Your task to perform on an android device: clear history in the chrome app Image 0: 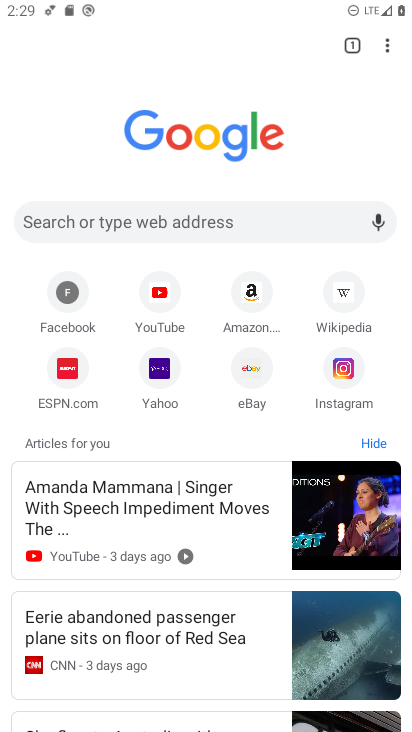
Step 0: press home button
Your task to perform on an android device: clear history in the chrome app Image 1: 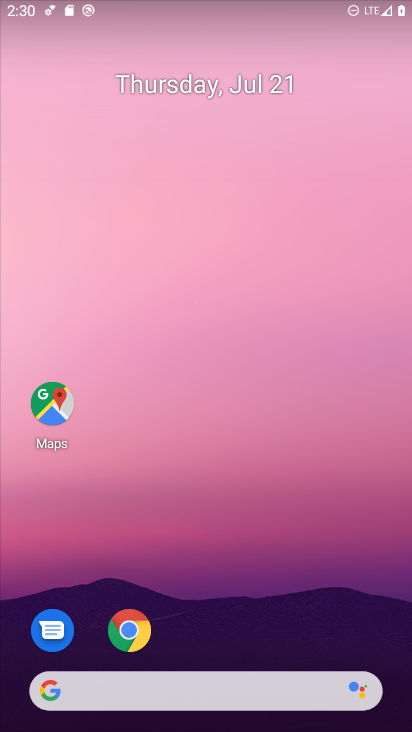
Step 1: click (122, 617)
Your task to perform on an android device: clear history in the chrome app Image 2: 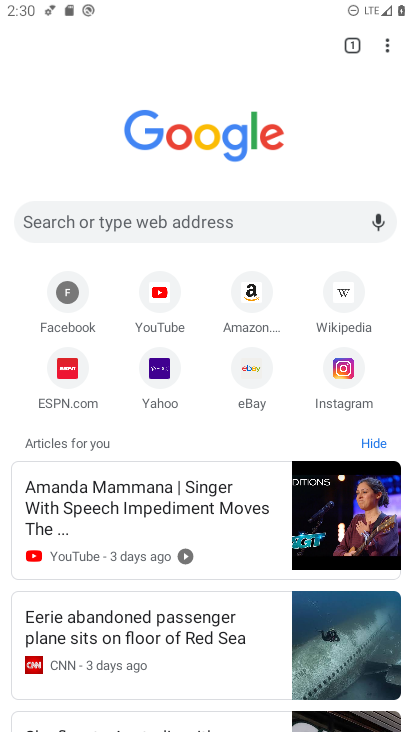
Step 2: click (393, 47)
Your task to perform on an android device: clear history in the chrome app Image 3: 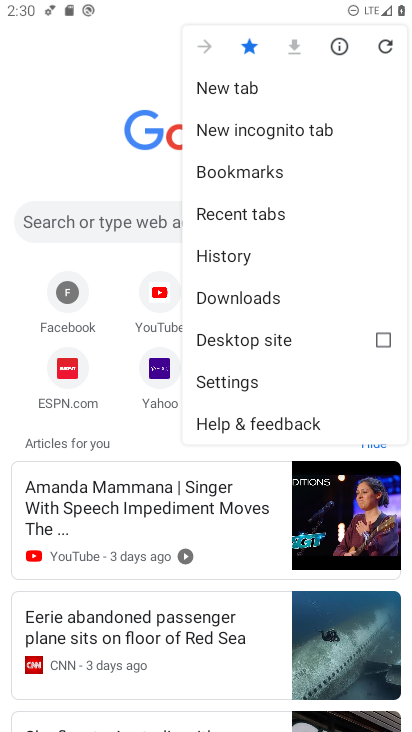
Step 3: click (230, 261)
Your task to perform on an android device: clear history in the chrome app Image 4: 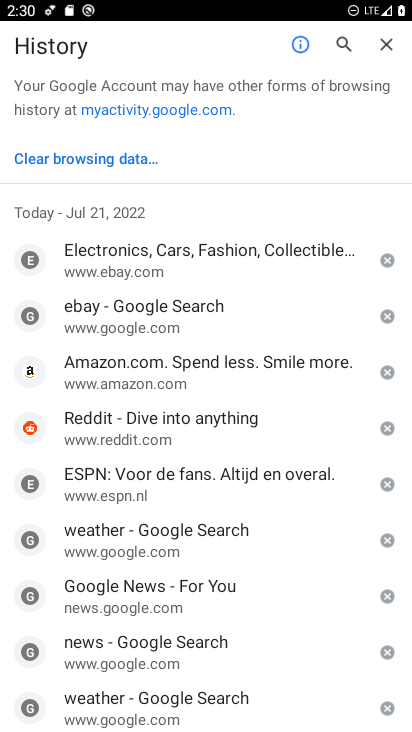
Step 4: click (122, 159)
Your task to perform on an android device: clear history in the chrome app Image 5: 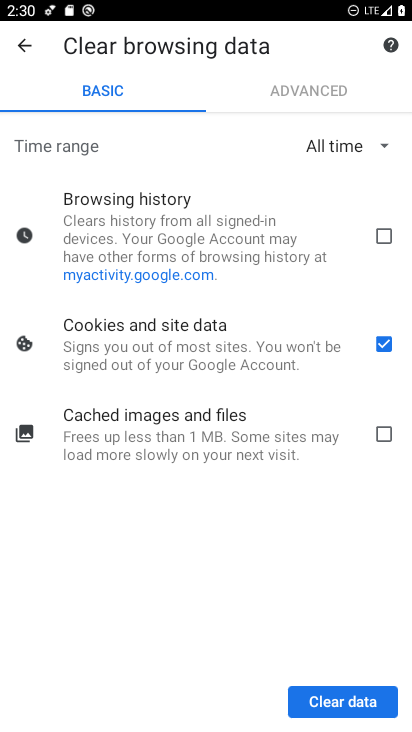
Step 5: click (382, 238)
Your task to perform on an android device: clear history in the chrome app Image 6: 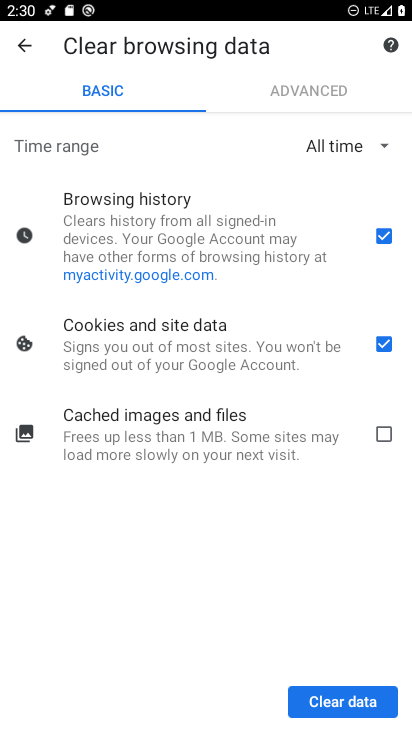
Step 6: click (386, 435)
Your task to perform on an android device: clear history in the chrome app Image 7: 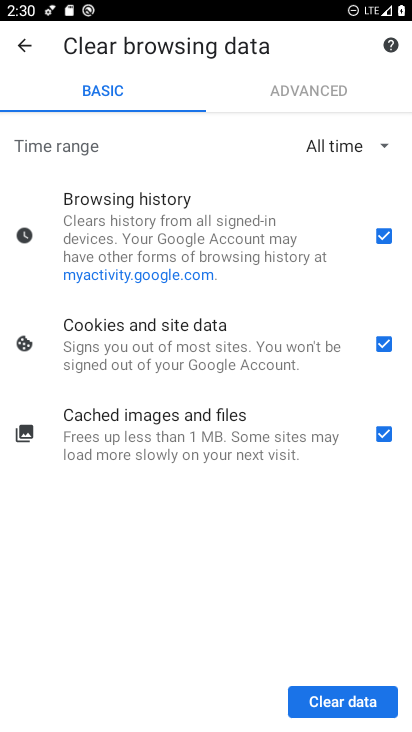
Step 7: click (365, 714)
Your task to perform on an android device: clear history in the chrome app Image 8: 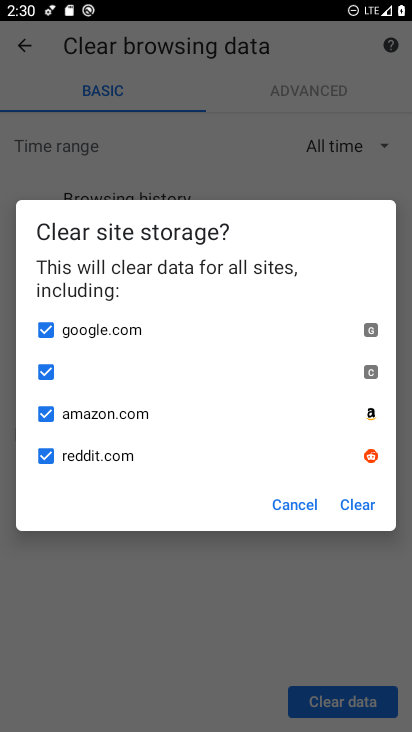
Step 8: click (360, 505)
Your task to perform on an android device: clear history in the chrome app Image 9: 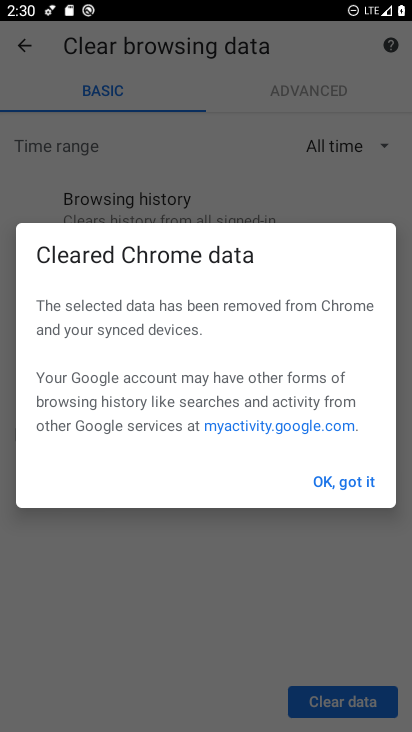
Step 9: click (356, 475)
Your task to perform on an android device: clear history in the chrome app Image 10: 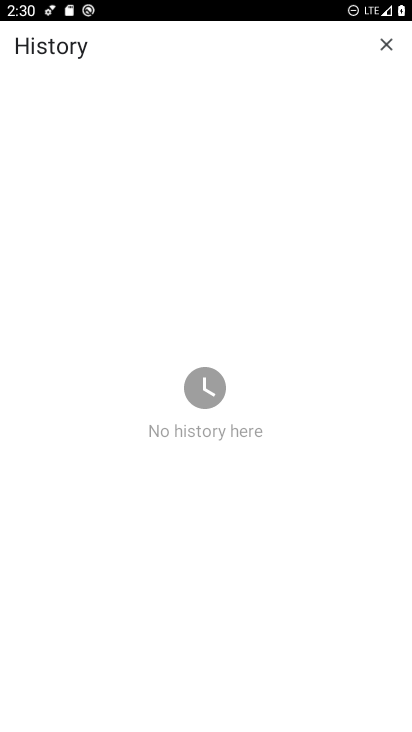
Step 10: task complete